Your task to perform on an android device: open a bookmark in the chrome app Image 0: 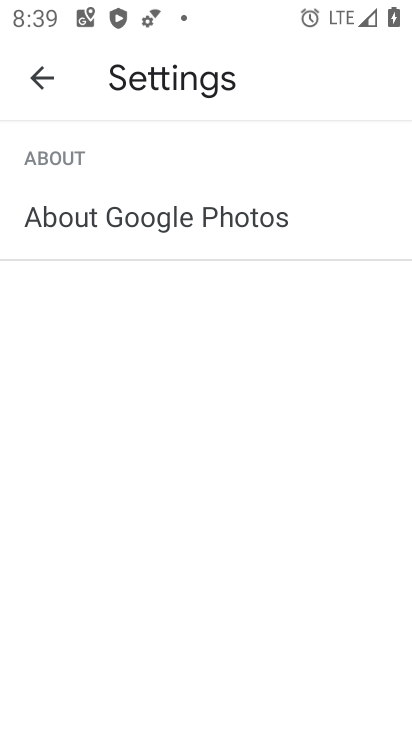
Step 0: press home button
Your task to perform on an android device: open a bookmark in the chrome app Image 1: 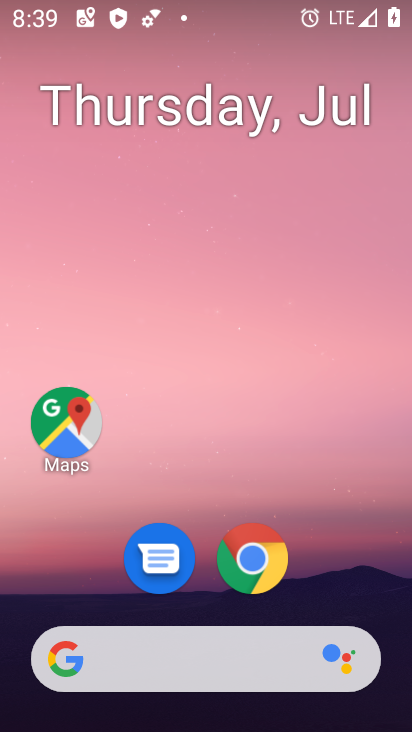
Step 1: drag from (184, 698) to (223, 228)
Your task to perform on an android device: open a bookmark in the chrome app Image 2: 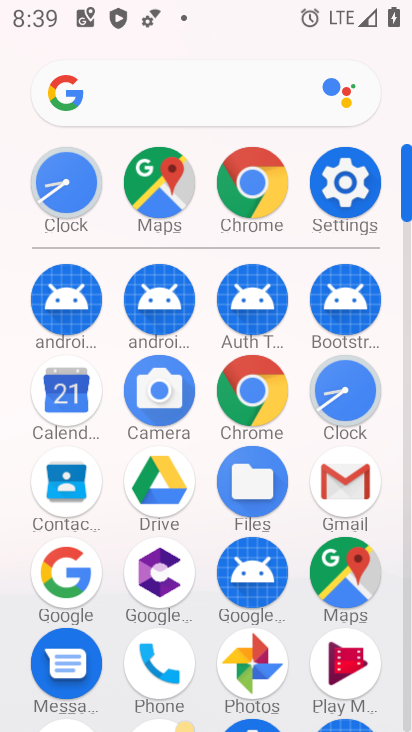
Step 2: click (245, 206)
Your task to perform on an android device: open a bookmark in the chrome app Image 3: 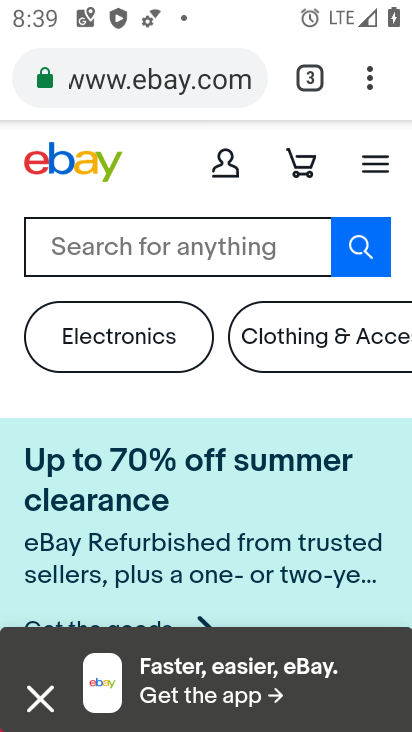
Step 3: click (372, 83)
Your task to perform on an android device: open a bookmark in the chrome app Image 4: 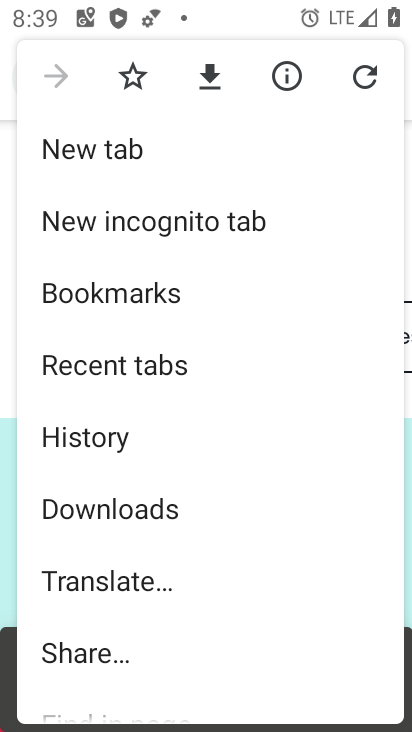
Step 4: drag from (203, 512) to (264, 121)
Your task to perform on an android device: open a bookmark in the chrome app Image 5: 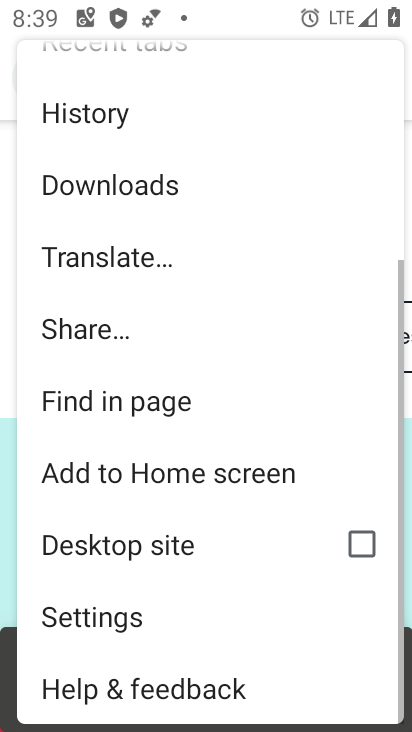
Step 5: click (125, 628)
Your task to perform on an android device: open a bookmark in the chrome app Image 6: 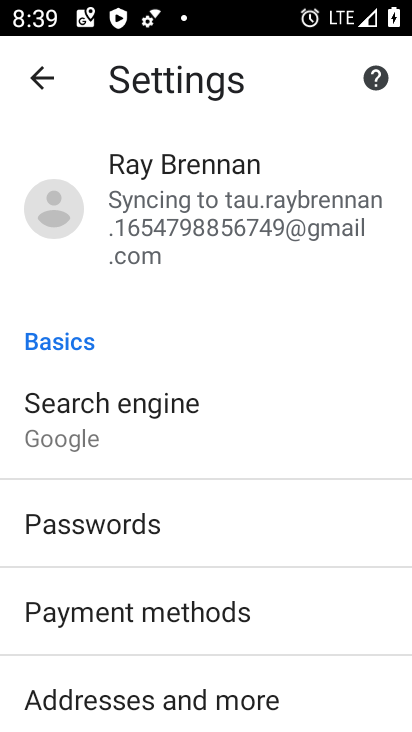
Step 6: drag from (153, 613) to (211, 296)
Your task to perform on an android device: open a bookmark in the chrome app Image 7: 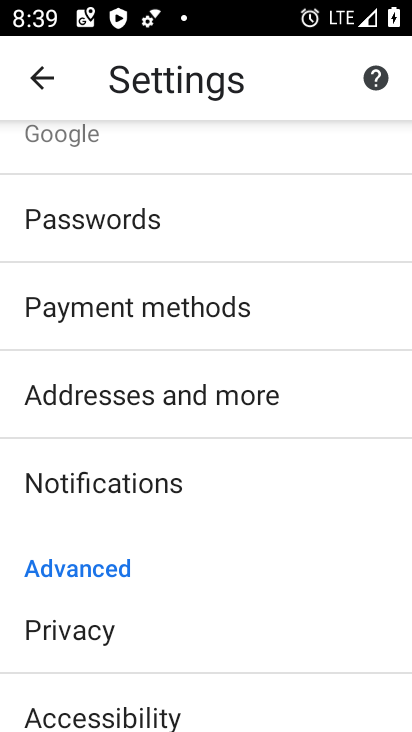
Step 7: click (46, 79)
Your task to perform on an android device: open a bookmark in the chrome app Image 8: 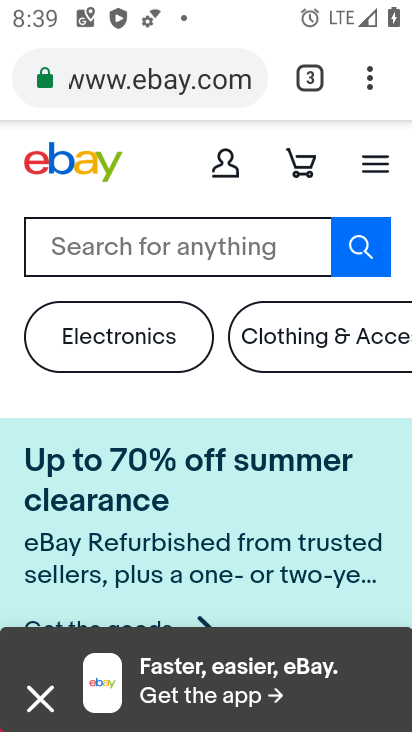
Step 8: click (360, 86)
Your task to perform on an android device: open a bookmark in the chrome app Image 9: 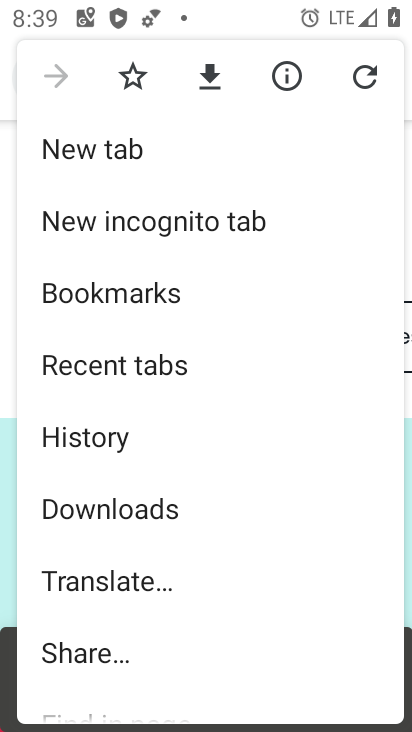
Step 9: click (132, 292)
Your task to perform on an android device: open a bookmark in the chrome app Image 10: 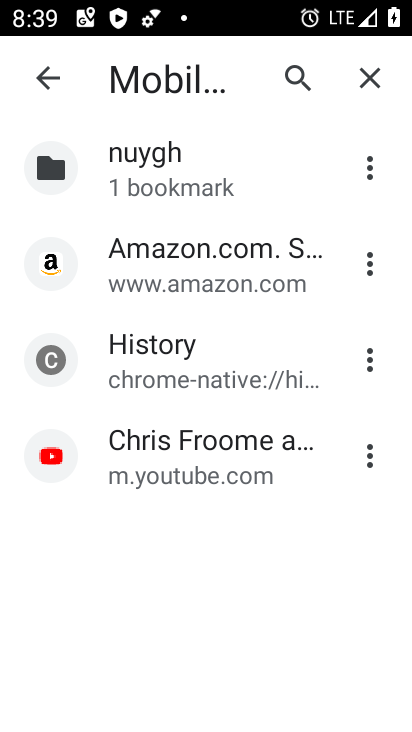
Step 10: task complete